Your task to perform on an android device: open a bookmark in the chrome app Image 0: 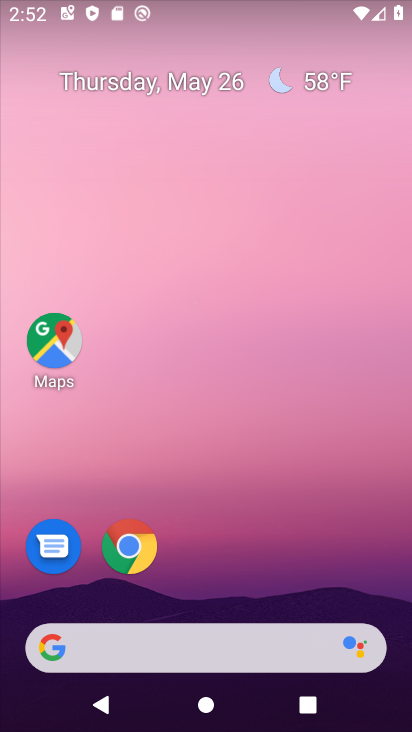
Step 0: press home button
Your task to perform on an android device: open a bookmark in the chrome app Image 1: 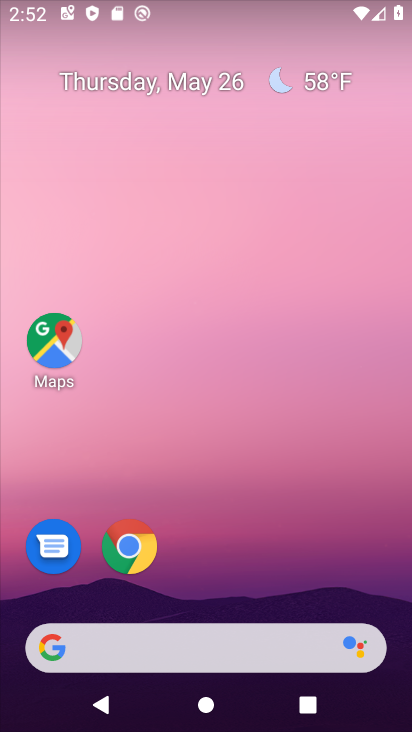
Step 1: click (256, 6)
Your task to perform on an android device: open a bookmark in the chrome app Image 2: 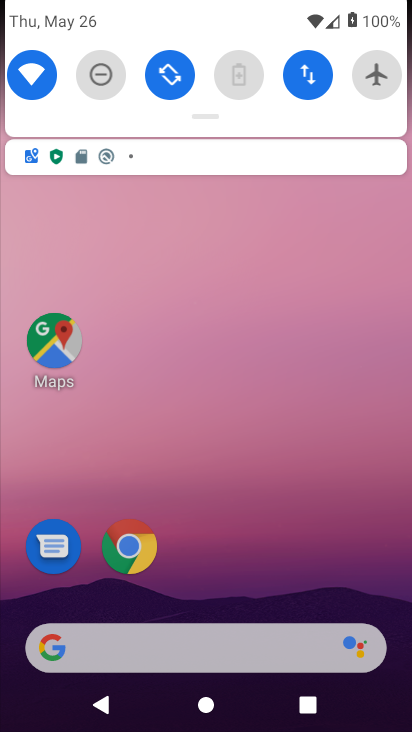
Step 2: drag from (225, 612) to (223, 69)
Your task to perform on an android device: open a bookmark in the chrome app Image 3: 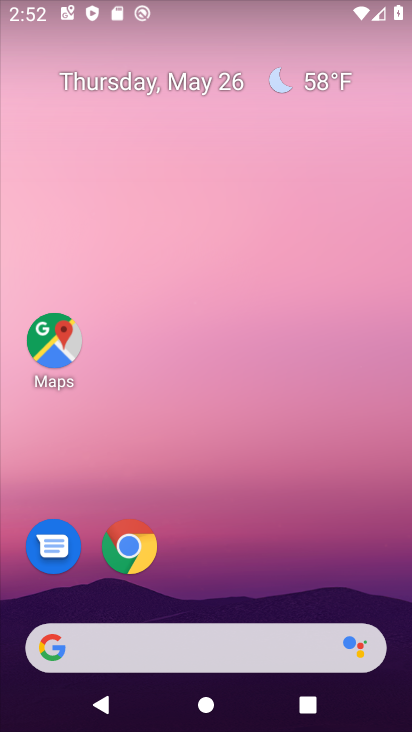
Step 3: drag from (215, 601) to (206, 77)
Your task to perform on an android device: open a bookmark in the chrome app Image 4: 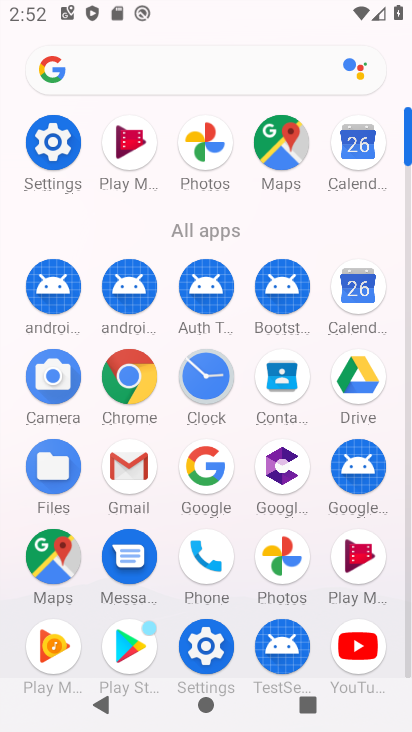
Step 4: click (125, 370)
Your task to perform on an android device: open a bookmark in the chrome app Image 5: 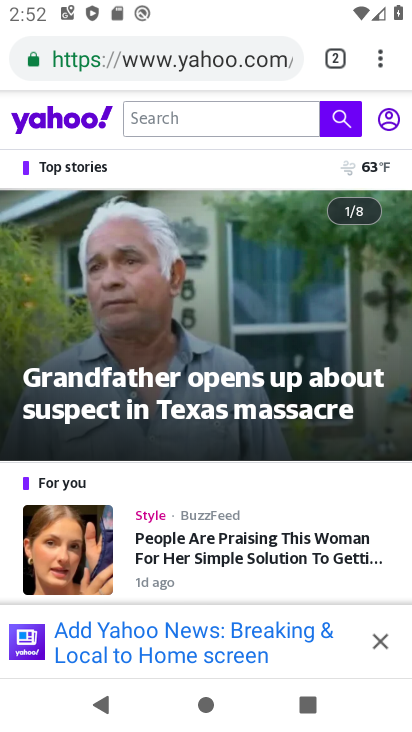
Step 5: click (373, 57)
Your task to perform on an android device: open a bookmark in the chrome app Image 6: 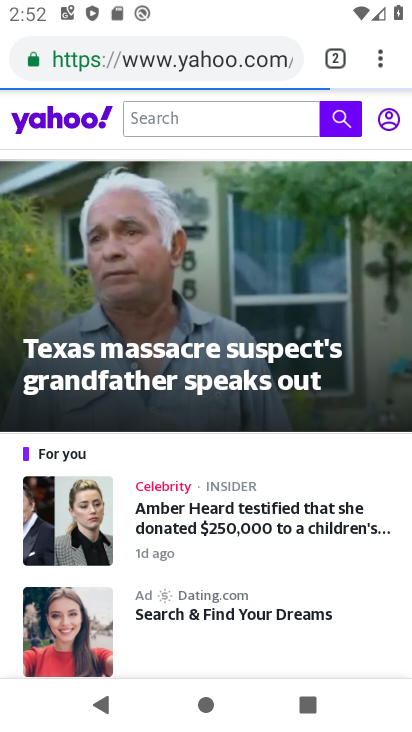
Step 6: click (376, 65)
Your task to perform on an android device: open a bookmark in the chrome app Image 7: 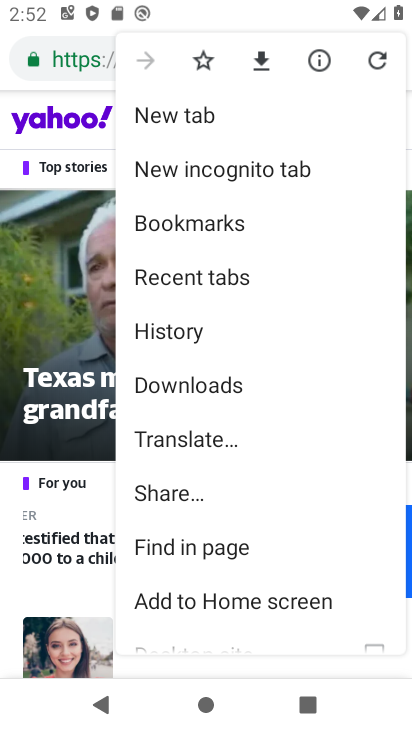
Step 7: click (215, 230)
Your task to perform on an android device: open a bookmark in the chrome app Image 8: 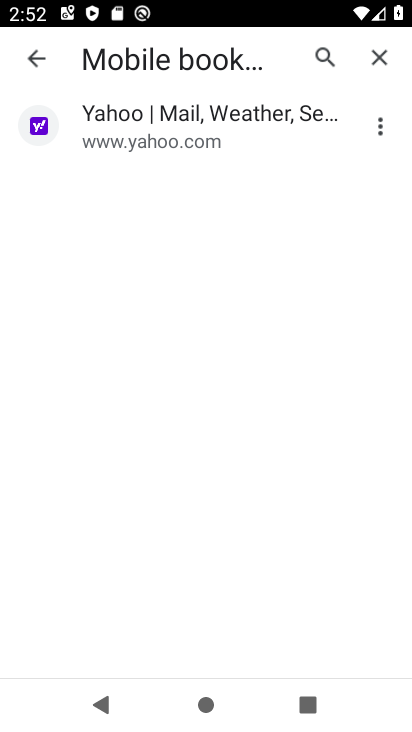
Step 8: click (134, 132)
Your task to perform on an android device: open a bookmark in the chrome app Image 9: 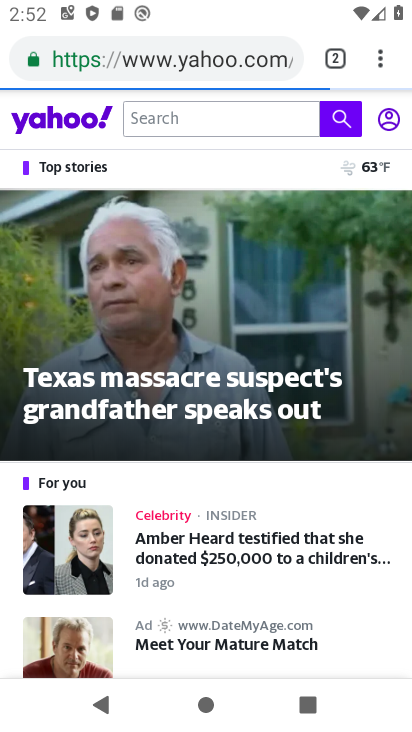
Step 9: task complete